Your task to perform on an android device: add a contact Image 0: 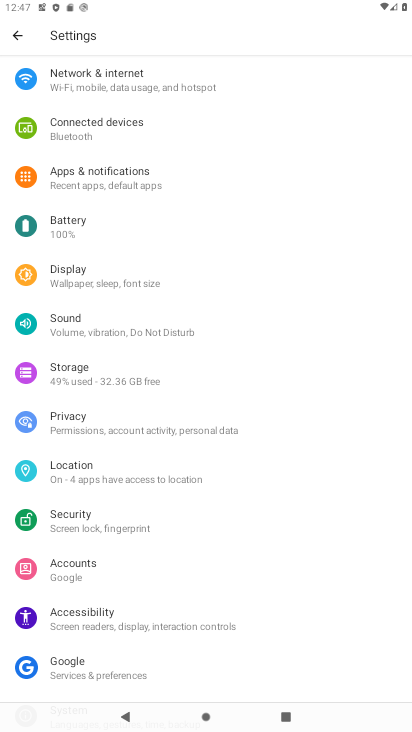
Step 0: press home button
Your task to perform on an android device: add a contact Image 1: 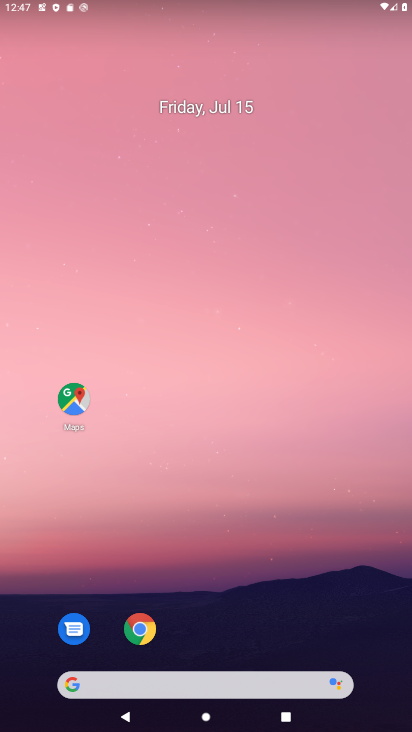
Step 1: drag from (242, 601) to (197, 110)
Your task to perform on an android device: add a contact Image 2: 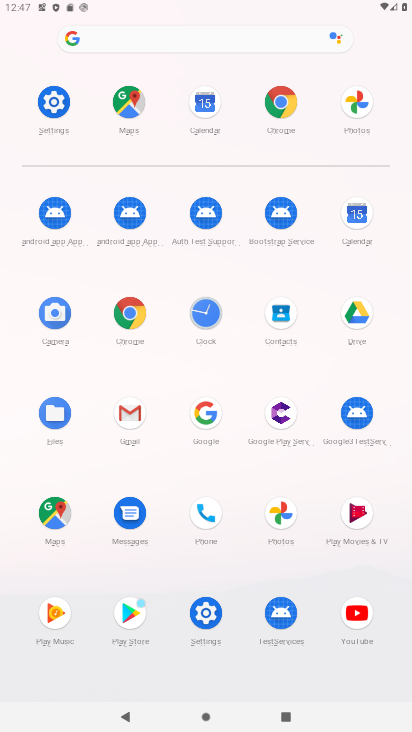
Step 2: click (280, 317)
Your task to perform on an android device: add a contact Image 3: 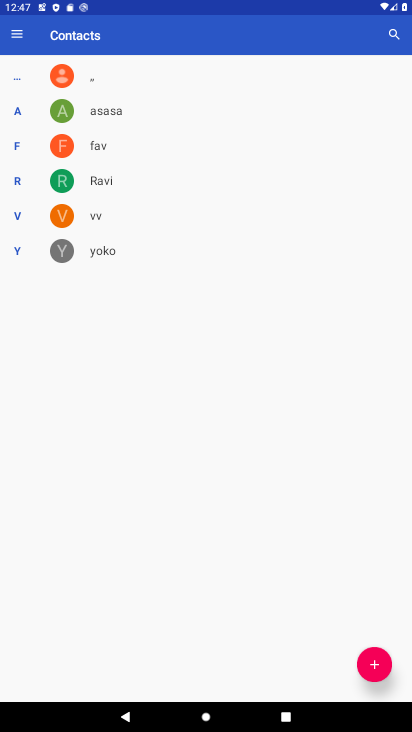
Step 3: click (378, 669)
Your task to perform on an android device: add a contact Image 4: 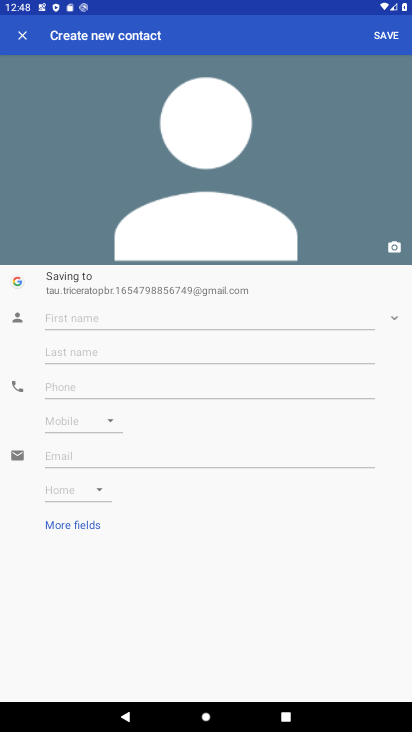
Step 4: click (259, 314)
Your task to perform on an android device: add a contact Image 5: 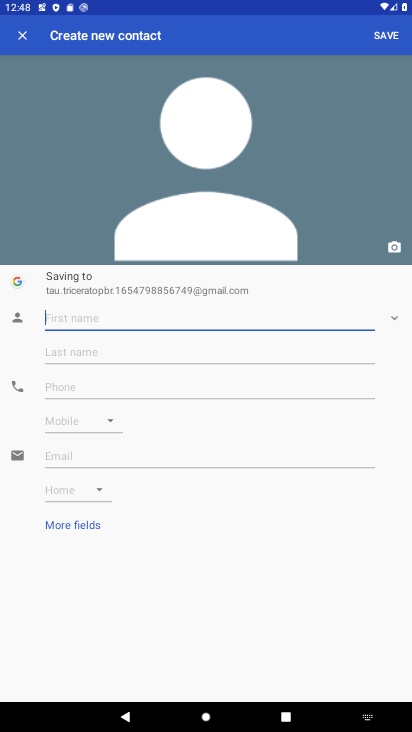
Step 5: type "jojojo"
Your task to perform on an android device: add a contact Image 6: 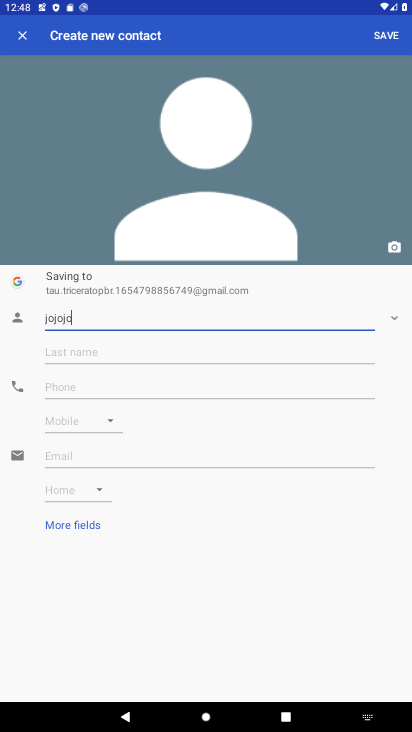
Step 6: click (385, 34)
Your task to perform on an android device: add a contact Image 7: 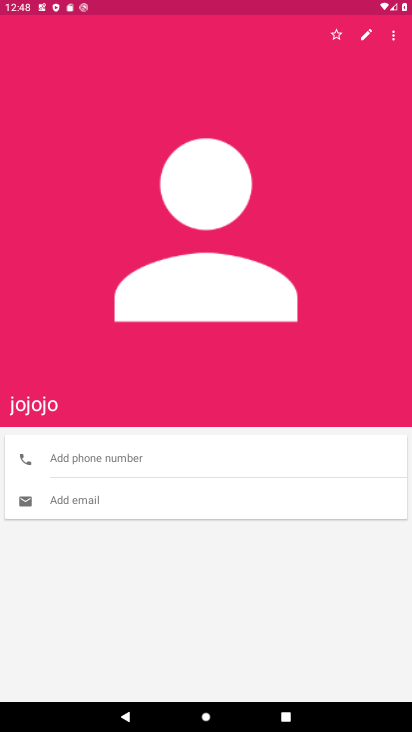
Step 7: task complete